Your task to perform on an android device: Open eBay Image 0: 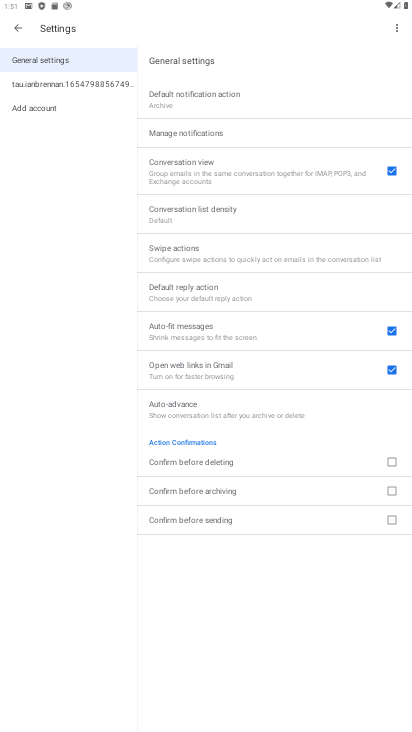
Step 0: press home button
Your task to perform on an android device: Open eBay Image 1: 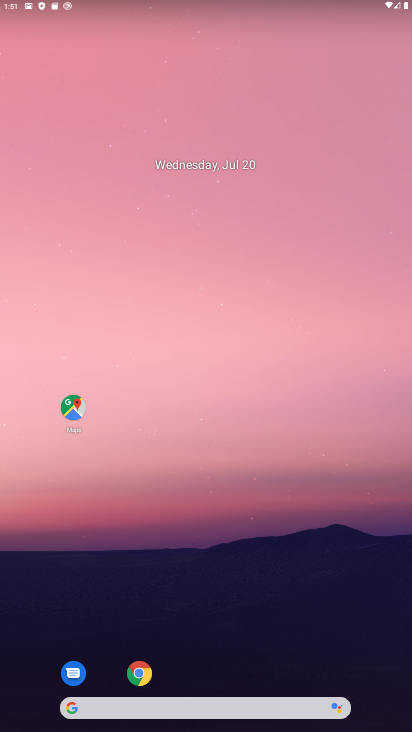
Step 1: drag from (211, 672) to (237, 71)
Your task to perform on an android device: Open eBay Image 2: 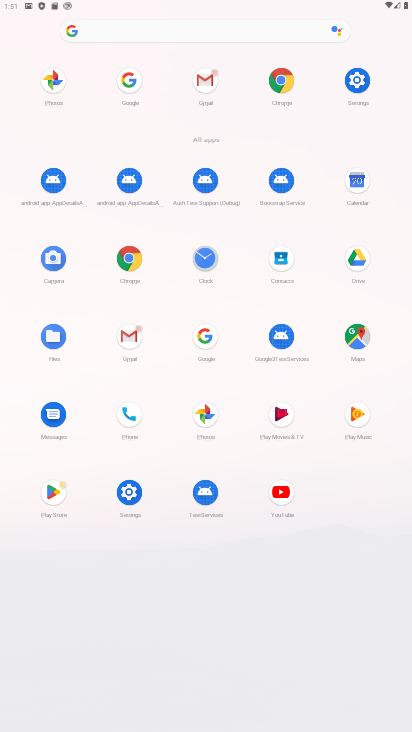
Step 2: click (210, 335)
Your task to perform on an android device: Open eBay Image 3: 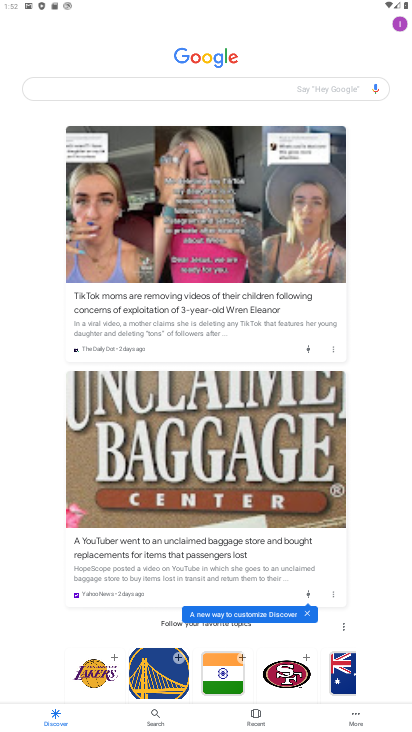
Step 3: click (137, 91)
Your task to perform on an android device: Open eBay Image 4: 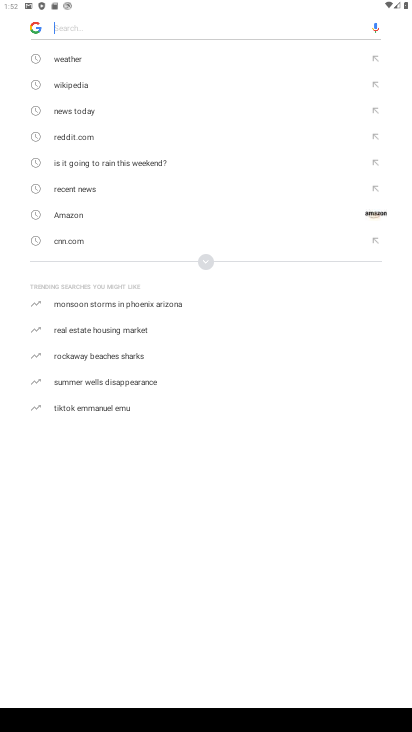
Step 4: type "ebay"
Your task to perform on an android device: Open eBay Image 5: 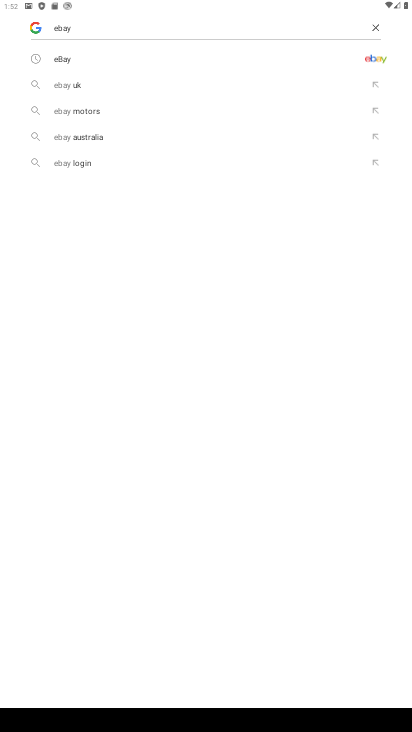
Step 5: click (128, 52)
Your task to perform on an android device: Open eBay Image 6: 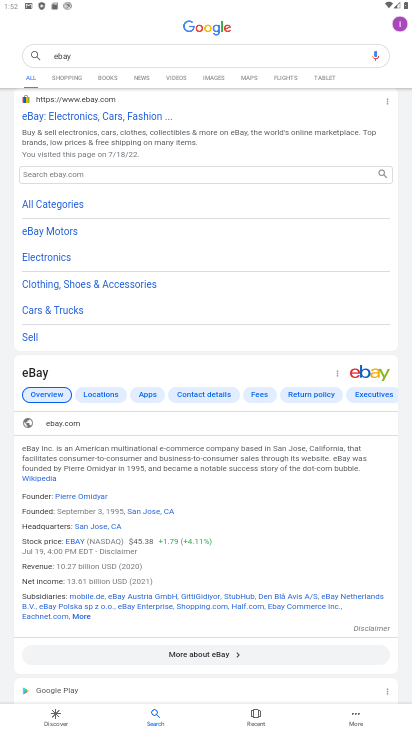
Step 6: click (53, 115)
Your task to perform on an android device: Open eBay Image 7: 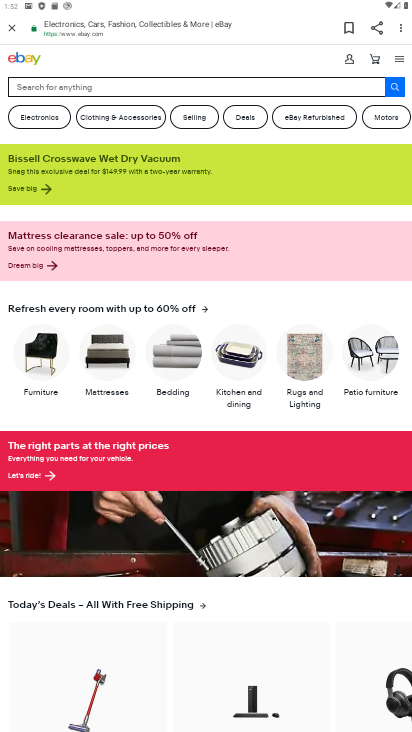
Step 7: task complete